Your task to perform on an android device: Open Google Image 0: 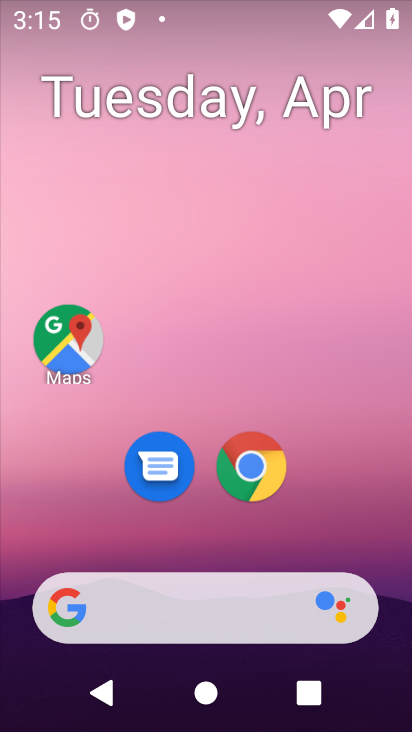
Step 0: drag from (221, 553) to (155, 31)
Your task to perform on an android device: Open Google Image 1: 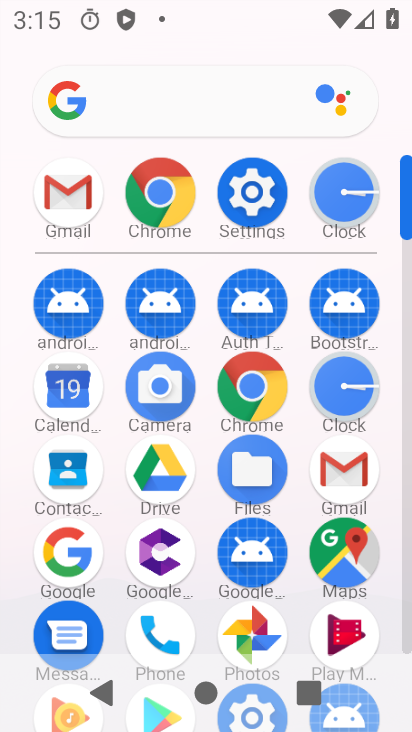
Step 1: drag from (206, 596) to (179, 176)
Your task to perform on an android device: Open Google Image 2: 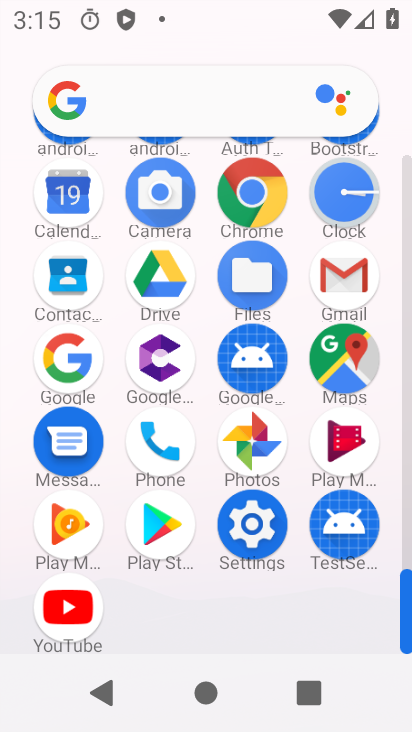
Step 2: click (55, 364)
Your task to perform on an android device: Open Google Image 3: 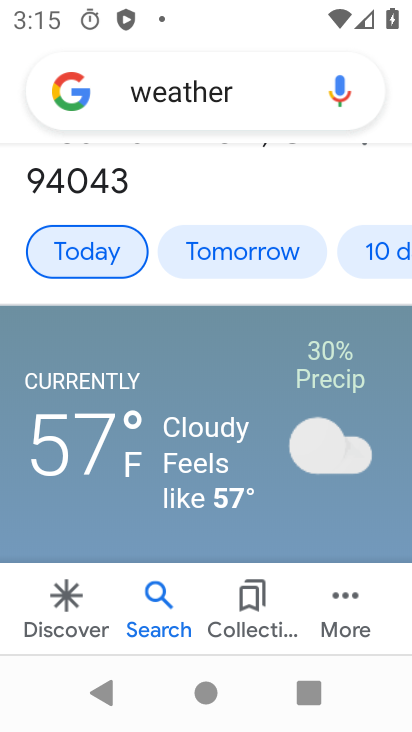
Step 3: task complete